Your task to perform on an android device: Is it going to rain today? Image 0: 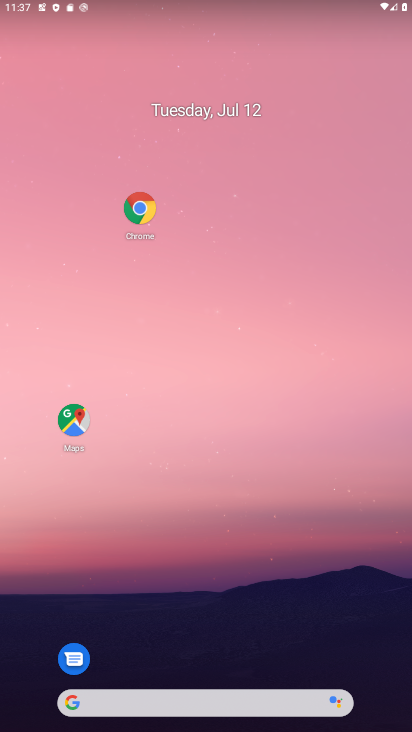
Step 0: drag from (314, 699) to (344, 64)
Your task to perform on an android device: Is it going to rain today? Image 1: 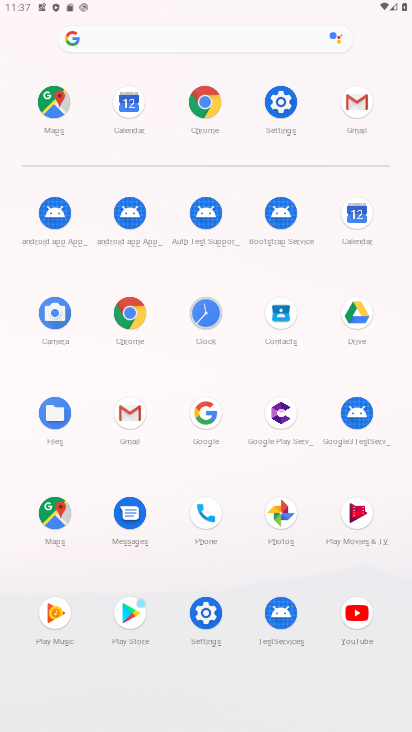
Step 1: click (128, 316)
Your task to perform on an android device: Is it going to rain today? Image 2: 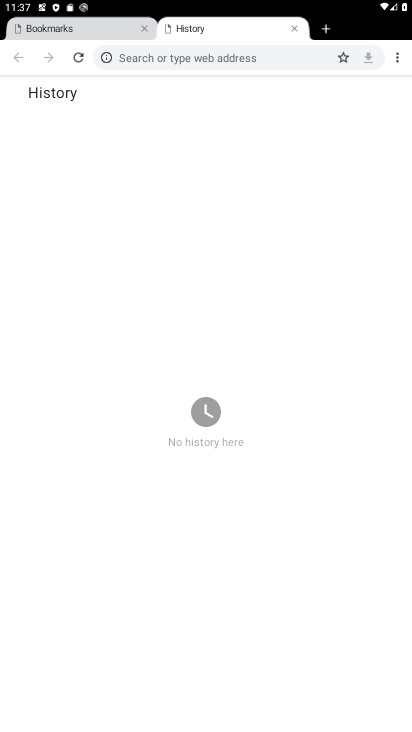
Step 2: click (260, 64)
Your task to perform on an android device: Is it going to rain today? Image 3: 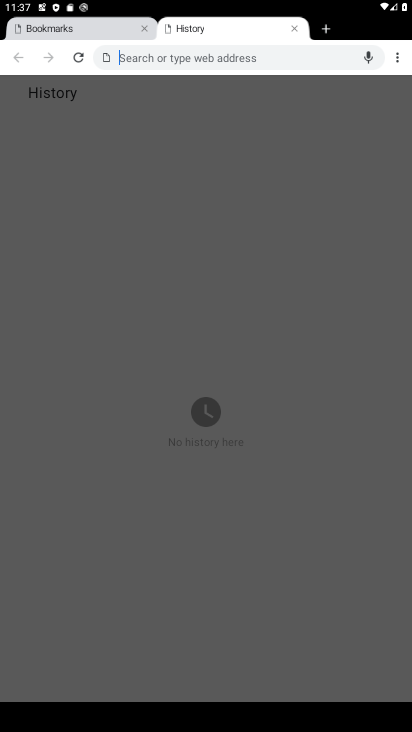
Step 3: type "going to rain today"
Your task to perform on an android device: Is it going to rain today? Image 4: 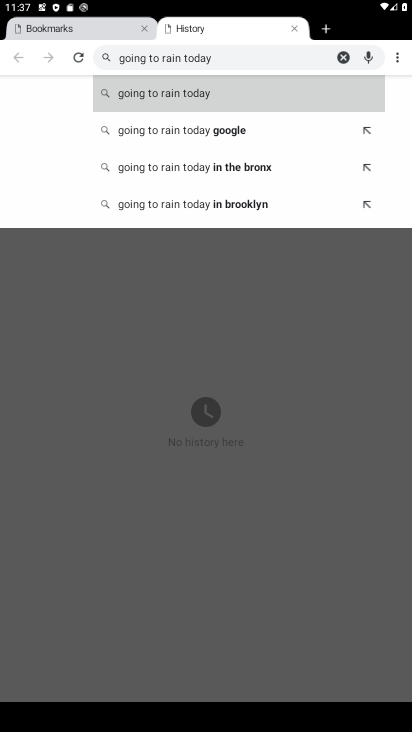
Step 4: click (202, 93)
Your task to perform on an android device: Is it going to rain today? Image 5: 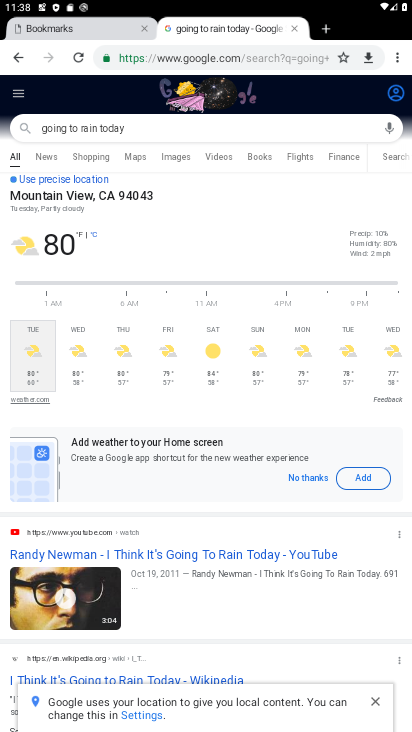
Step 5: task complete